Your task to perform on an android device: What's on my calendar today? Image 0: 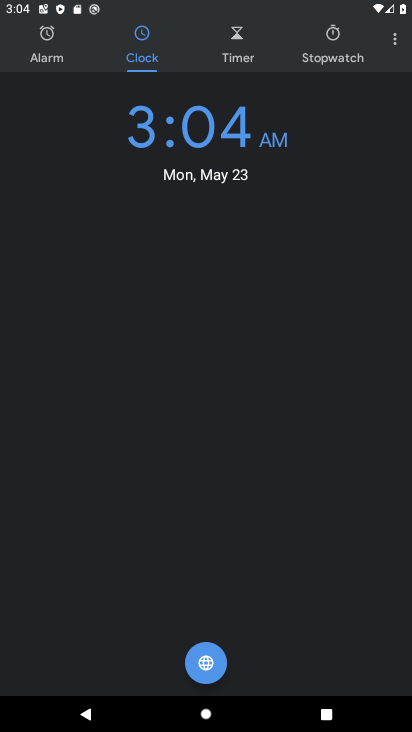
Step 0: press back button
Your task to perform on an android device: What's on my calendar today? Image 1: 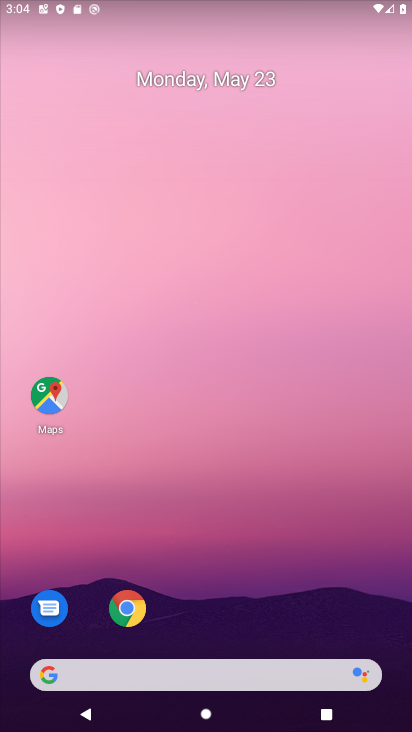
Step 1: drag from (246, 552) to (158, 130)
Your task to perform on an android device: What's on my calendar today? Image 2: 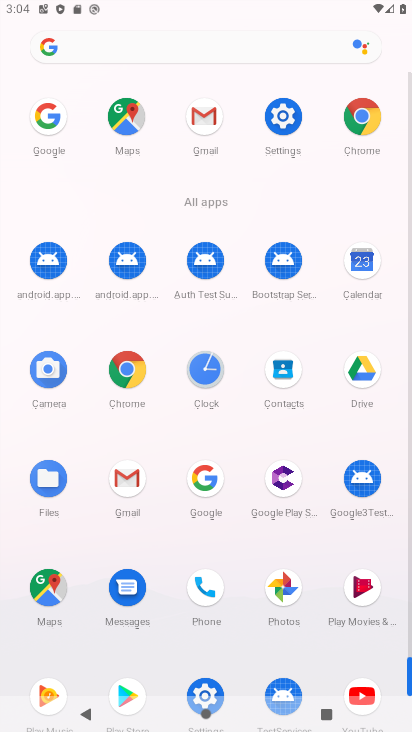
Step 2: click (361, 261)
Your task to perform on an android device: What's on my calendar today? Image 3: 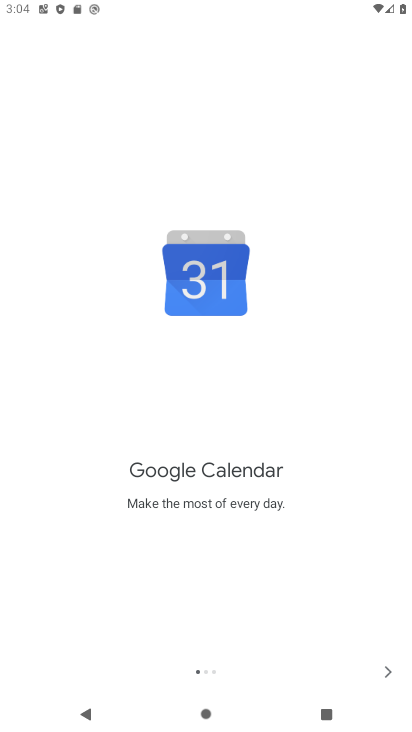
Step 3: click (387, 670)
Your task to perform on an android device: What's on my calendar today? Image 4: 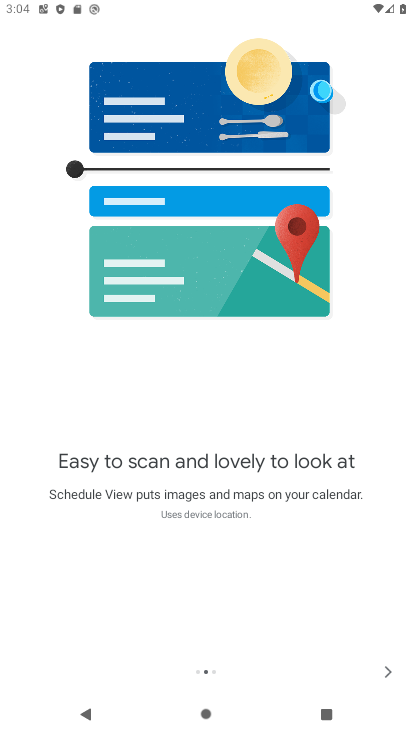
Step 4: click (387, 670)
Your task to perform on an android device: What's on my calendar today? Image 5: 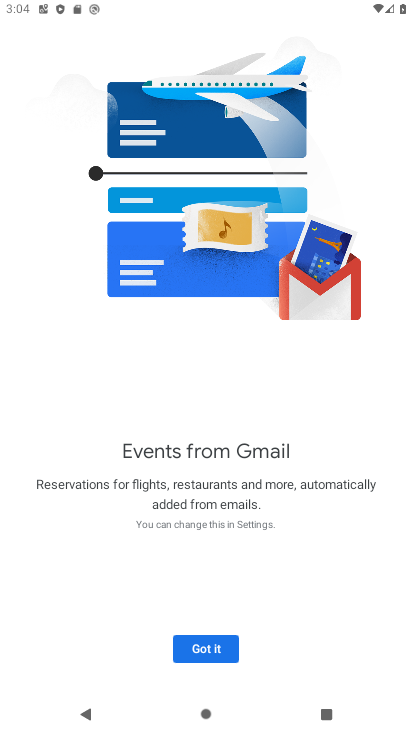
Step 5: click (208, 650)
Your task to perform on an android device: What's on my calendar today? Image 6: 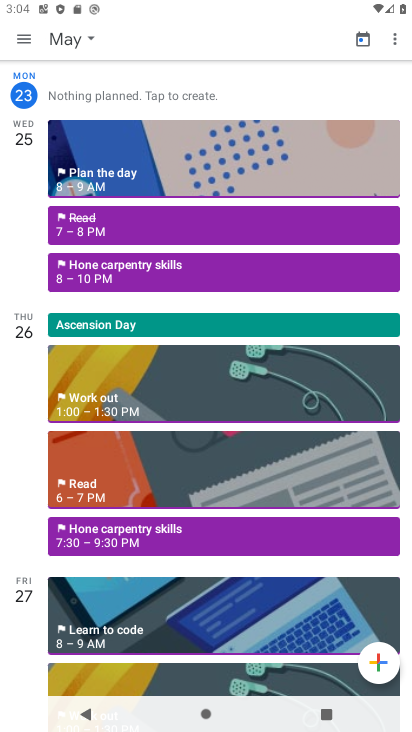
Step 6: click (68, 95)
Your task to perform on an android device: What's on my calendar today? Image 7: 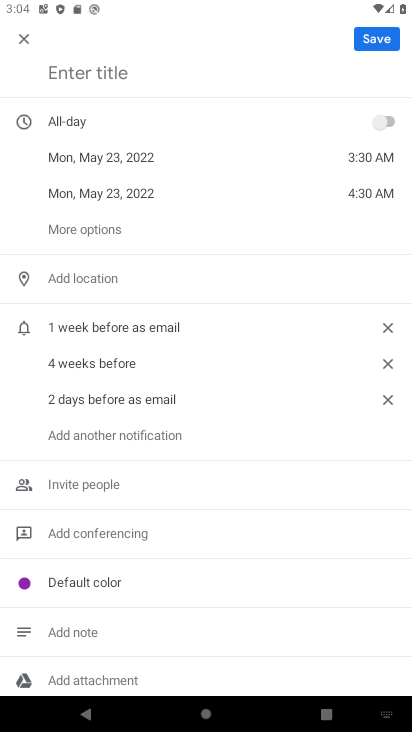
Step 7: task complete